Your task to perform on an android device: add a contact Image 0: 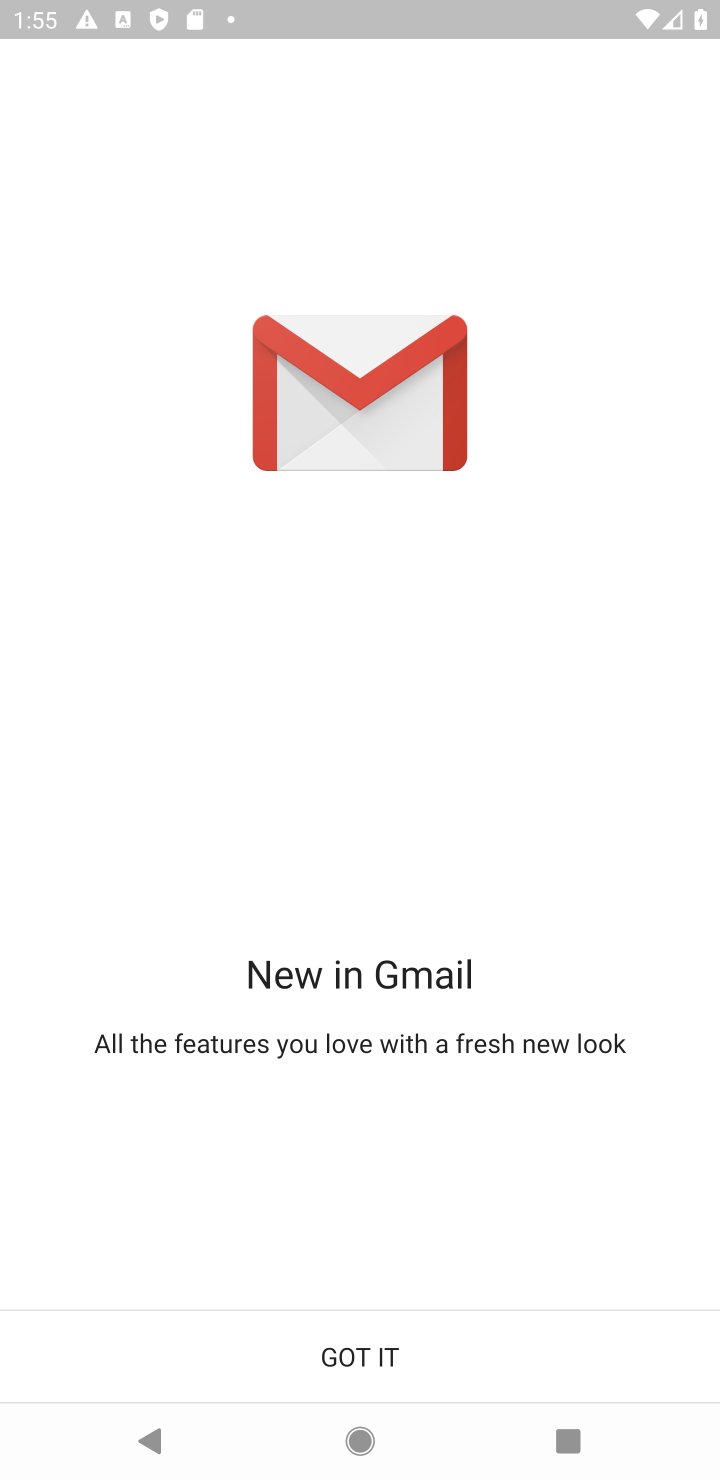
Step 0: press home button
Your task to perform on an android device: add a contact Image 1: 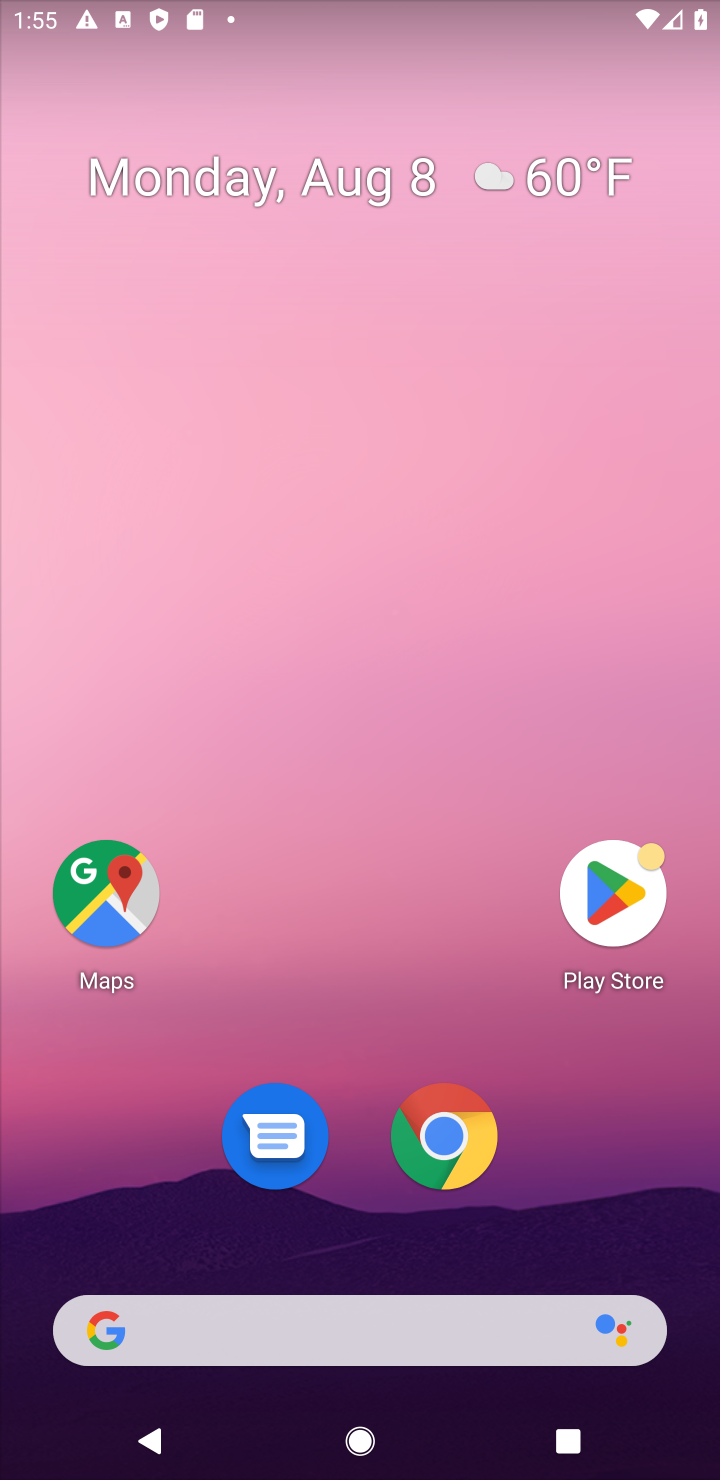
Step 1: drag from (62, 1434) to (326, 0)
Your task to perform on an android device: add a contact Image 2: 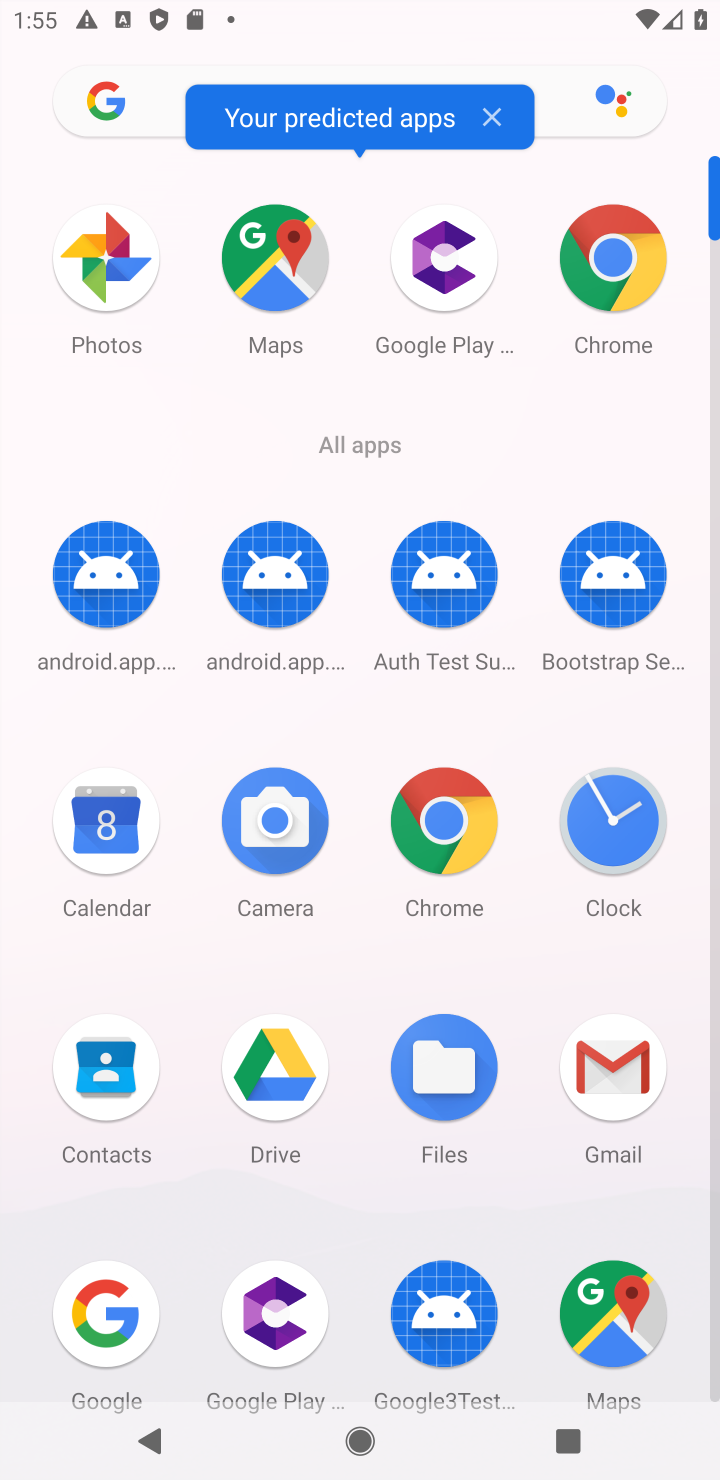
Step 2: click (112, 1064)
Your task to perform on an android device: add a contact Image 3: 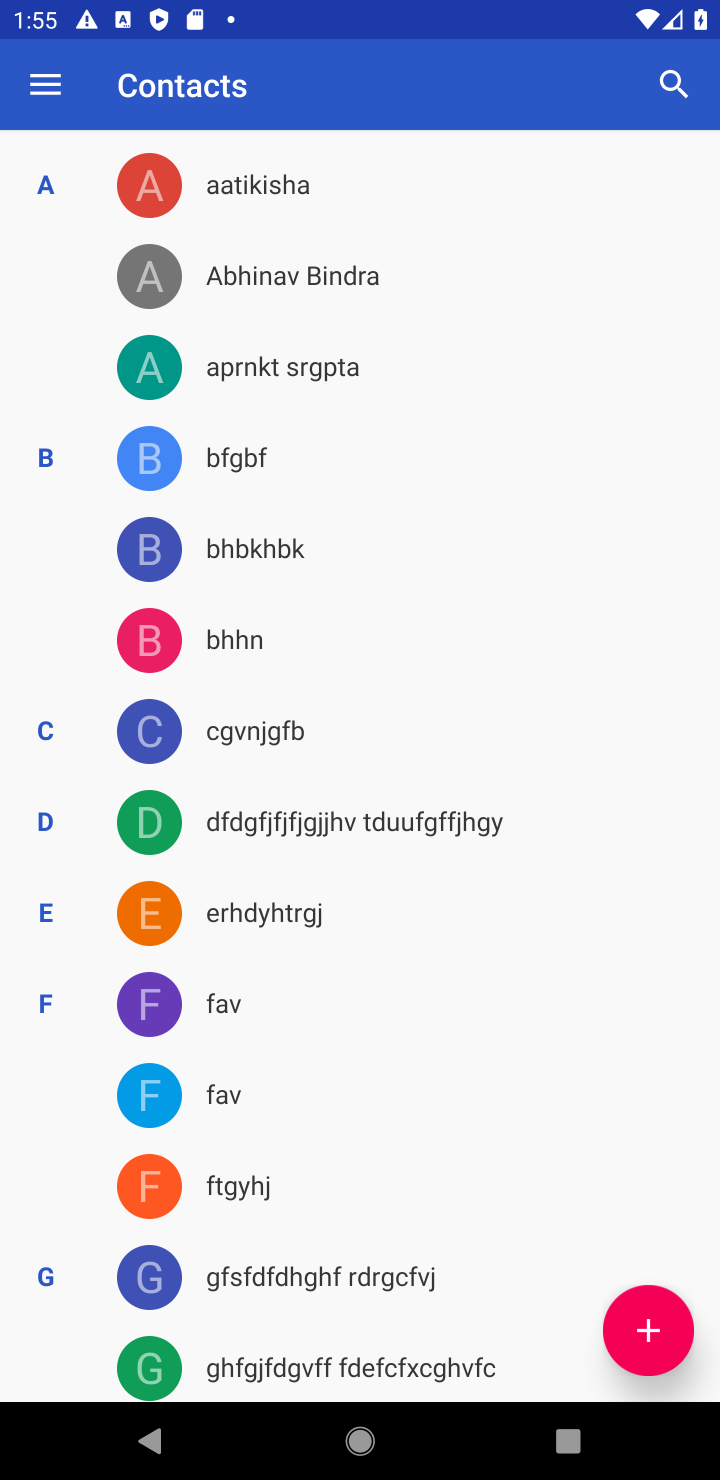
Step 3: click (661, 1329)
Your task to perform on an android device: add a contact Image 4: 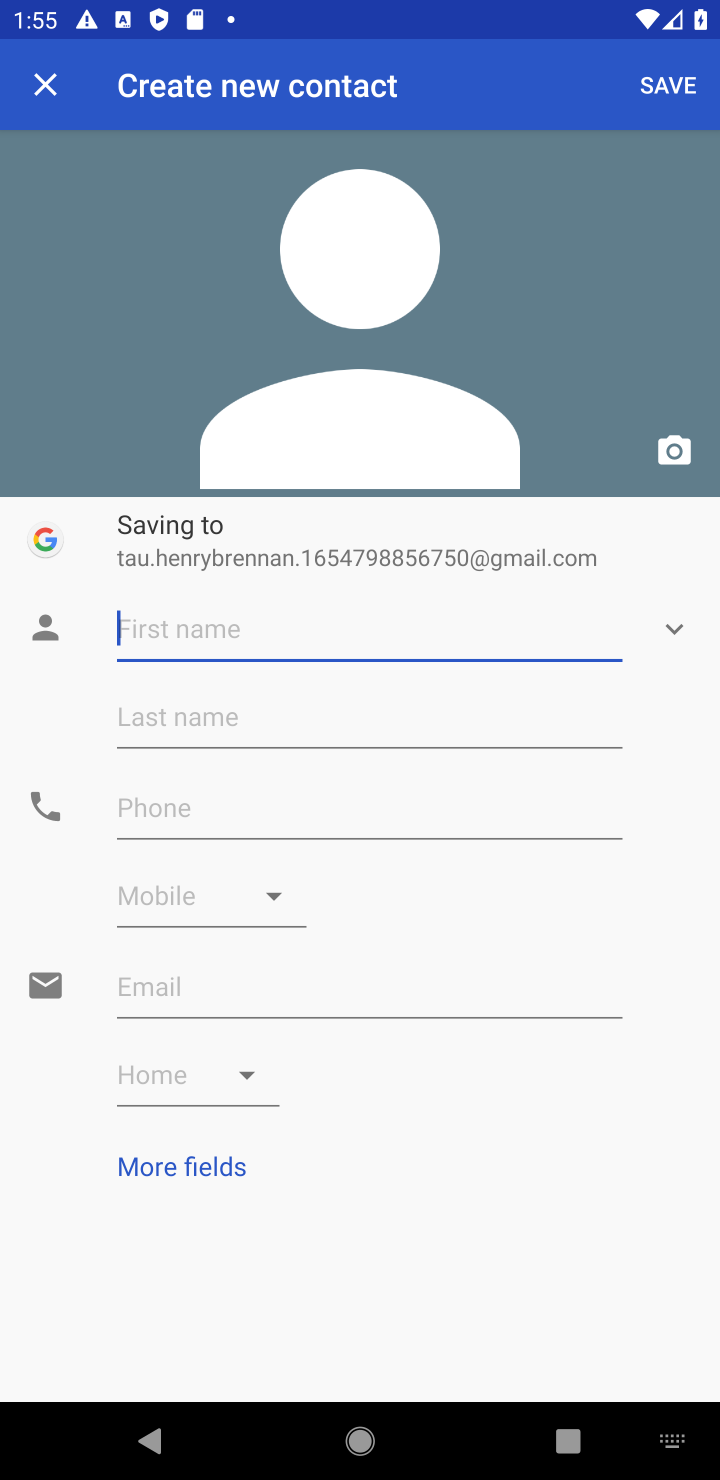
Step 4: type "xfnv "
Your task to perform on an android device: add a contact Image 5: 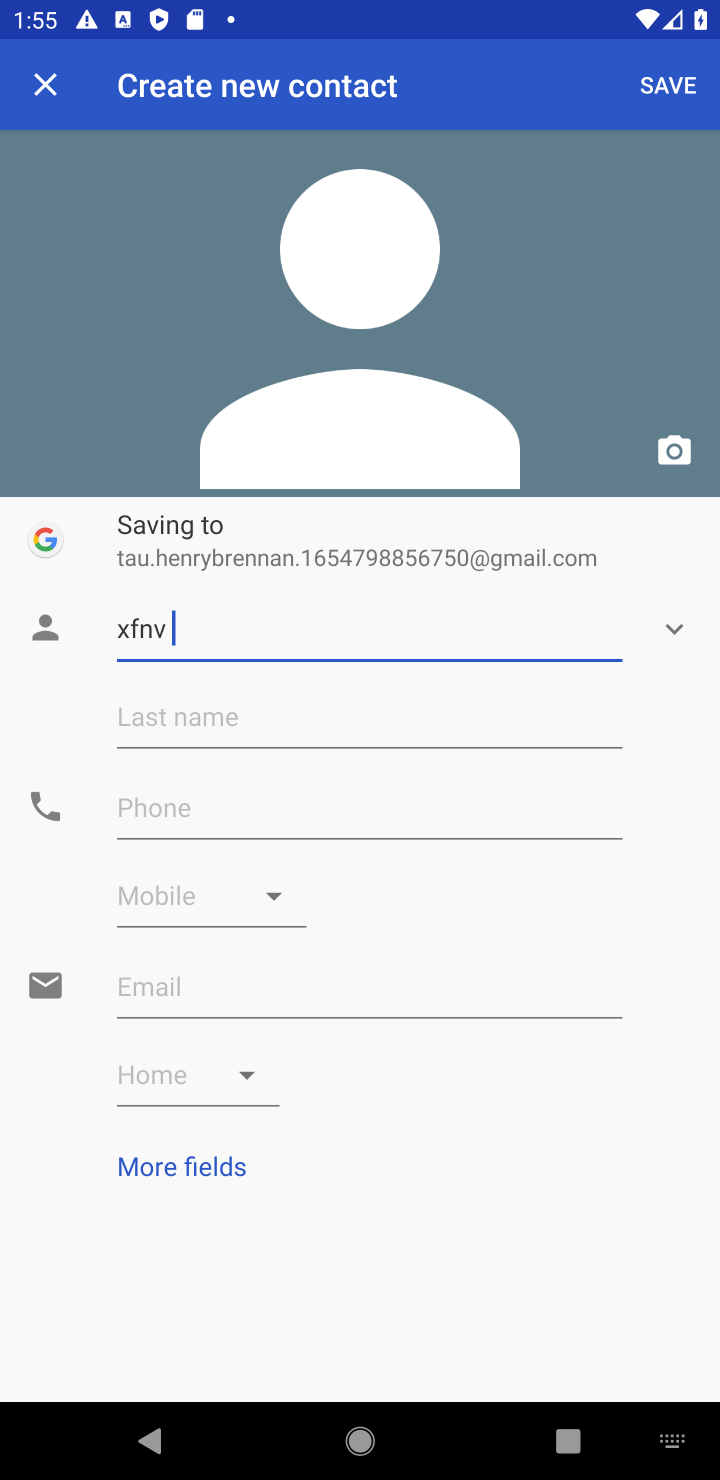
Step 5: click (667, 97)
Your task to perform on an android device: add a contact Image 6: 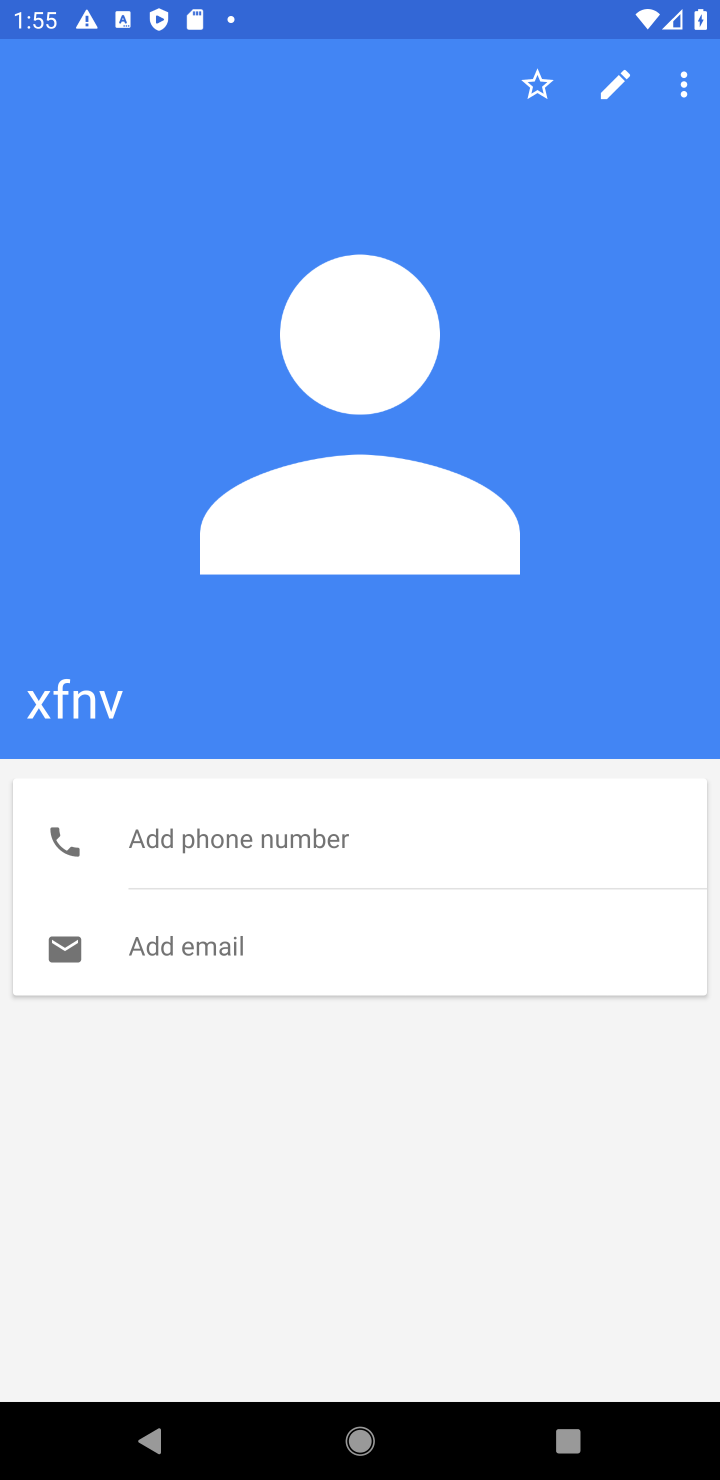
Step 6: task complete